Your task to perform on an android device: Go to network settings Image 0: 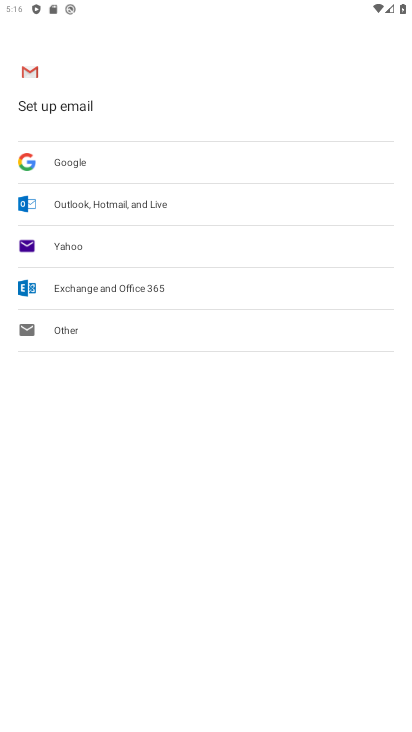
Step 0: press home button
Your task to perform on an android device: Go to network settings Image 1: 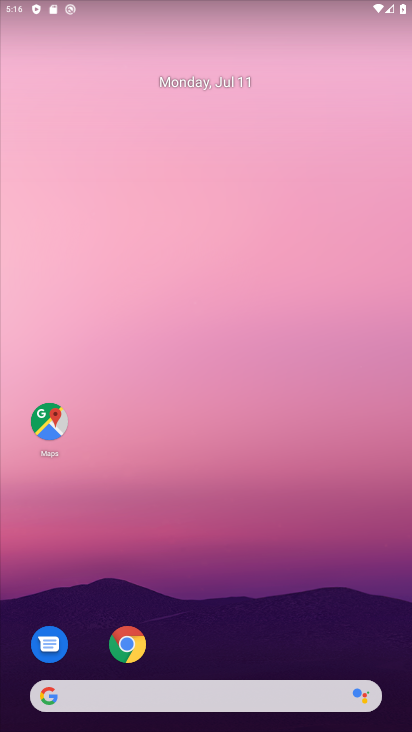
Step 1: drag from (156, 683) to (190, 0)
Your task to perform on an android device: Go to network settings Image 2: 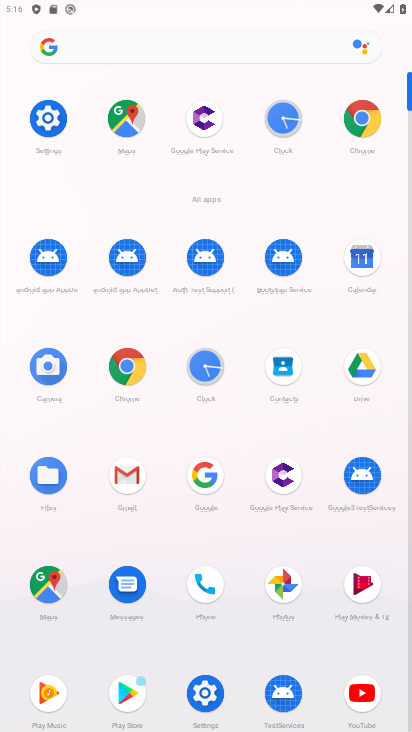
Step 2: click (50, 115)
Your task to perform on an android device: Go to network settings Image 3: 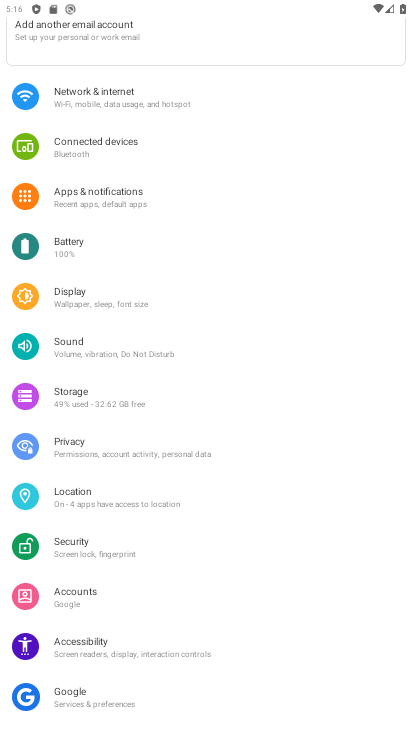
Step 3: click (116, 96)
Your task to perform on an android device: Go to network settings Image 4: 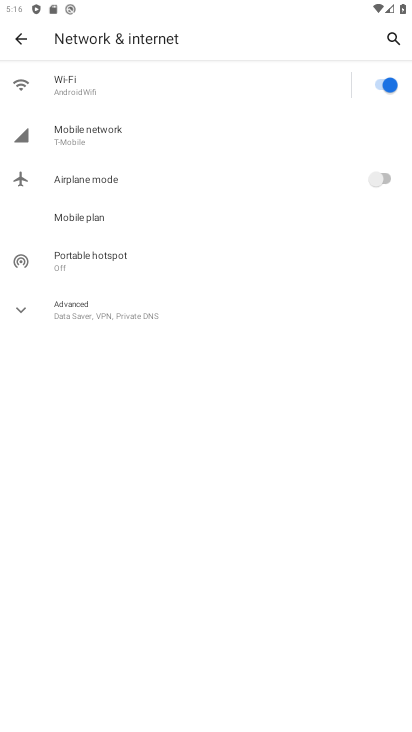
Step 4: task complete